Your task to perform on an android device: Do I have any events tomorrow? Image 0: 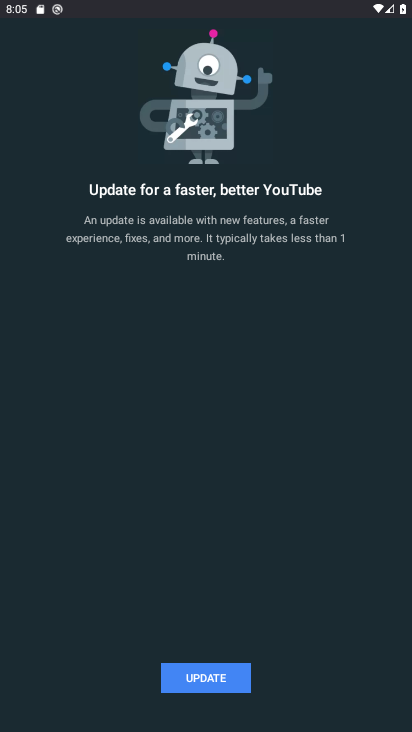
Step 0: press home button
Your task to perform on an android device: Do I have any events tomorrow? Image 1: 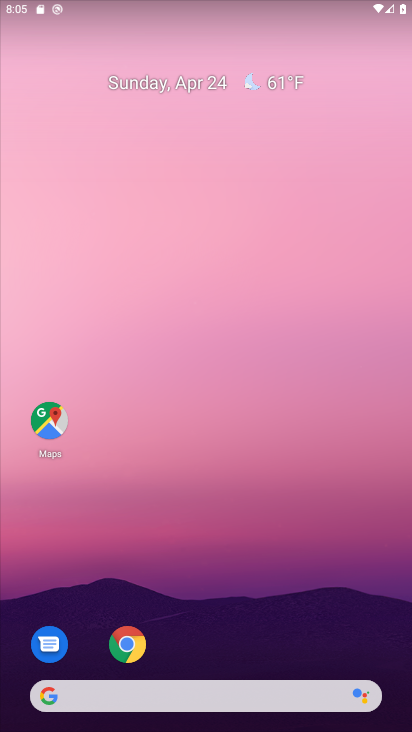
Step 1: drag from (214, 661) to (251, 24)
Your task to perform on an android device: Do I have any events tomorrow? Image 2: 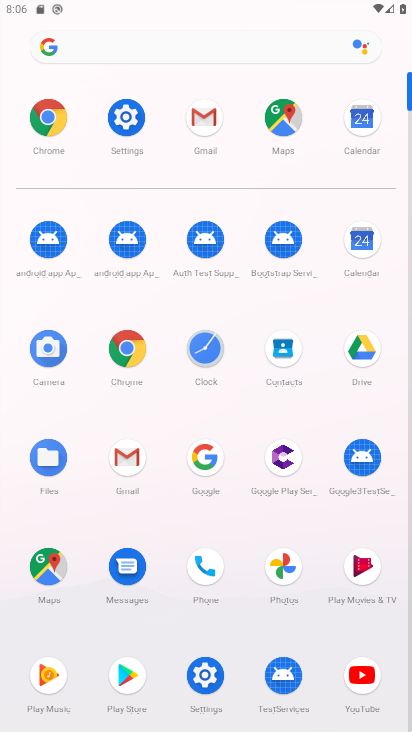
Step 2: click (359, 237)
Your task to perform on an android device: Do I have any events tomorrow? Image 3: 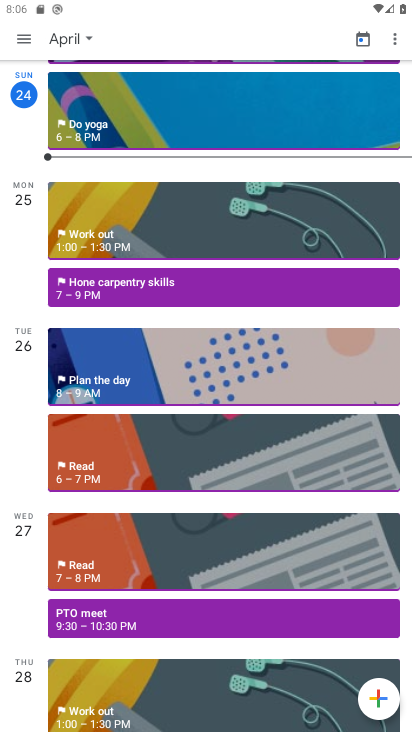
Step 3: click (26, 35)
Your task to perform on an android device: Do I have any events tomorrow? Image 4: 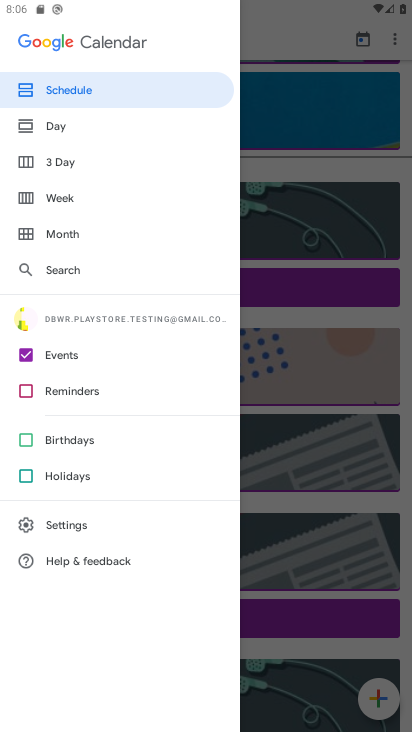
Step 4: click (55, 121)
Your task to perform on an android device: Do I have any events tomorrow? Image 5: 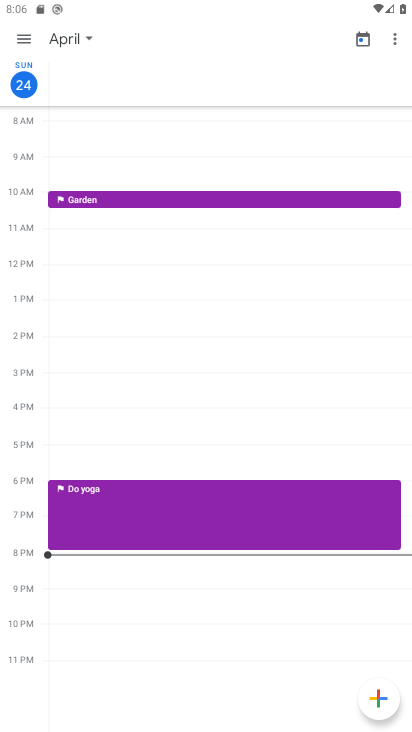
Step 5: click (36, 94)
Your task to perform on an android device: Do I have any events tomorrow? Image 6: 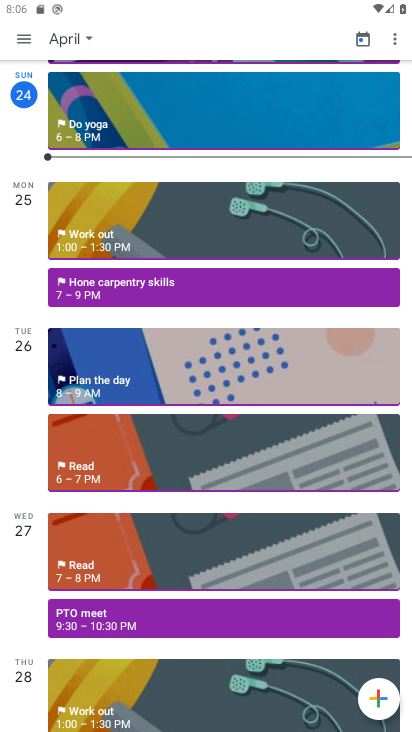
Step 6: click (29, 221)
Your task to perform on an android device: Do I have any events tomorrow? Image 7: 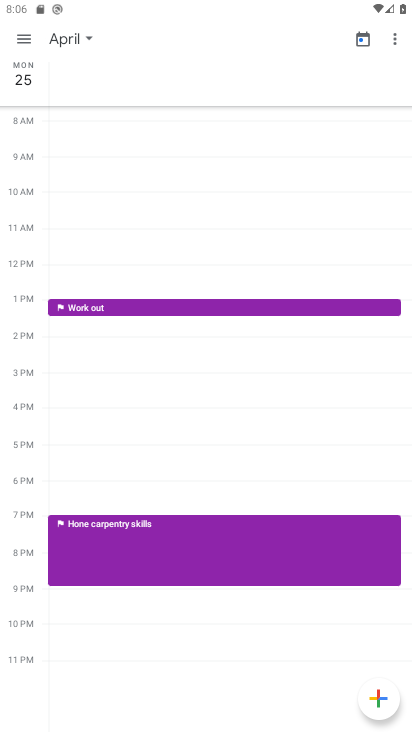
Step 7: task complete